Your task to perform on an android device: open chrome and create a bookmark for the current page Image 0: 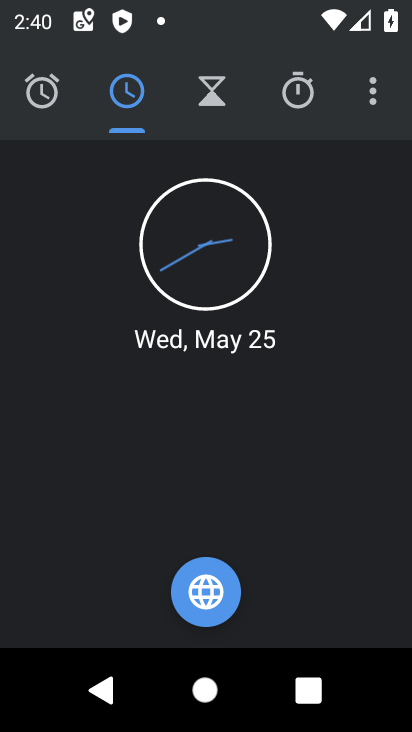
Step 0: press home button
Your task to perform on an android device: open chrome and create a bookmark for the current page Image 1: 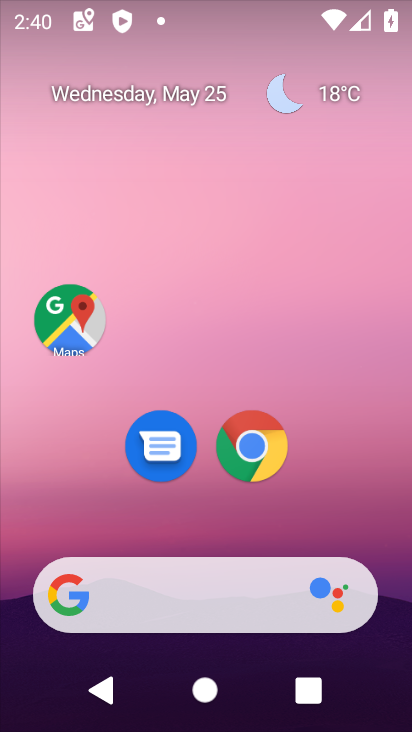
Step 1: click (243, 467)
Your task to perform on an android device: open chrome and create a bookmark for the current page Image 2: 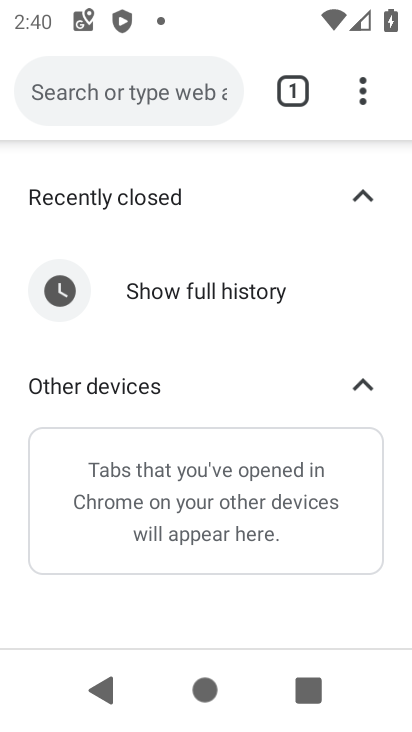
Step 2: task complete